Your task to perform on an android device: turn on the 12-hour format for clock Image 0: 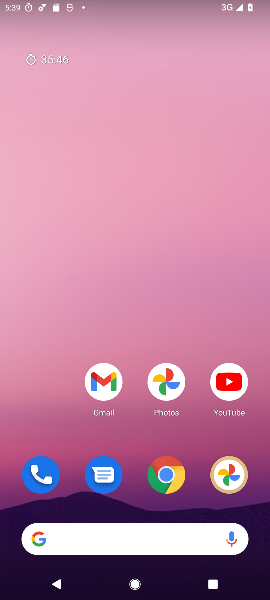
Step 0: press home button
Your task to perform on an android device: turn on the 12-hour format for clock Image 1: 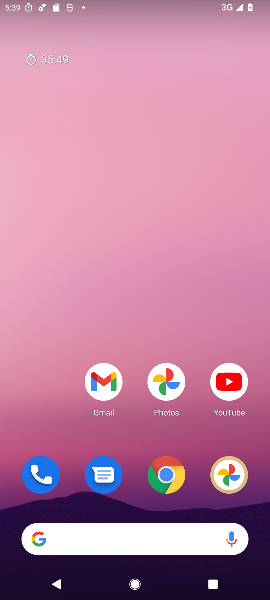
Step 1: drag from (60, 400) to (62, 126)
Your task to perform on an android device: turn on the 12-hour format for clock Image 2: 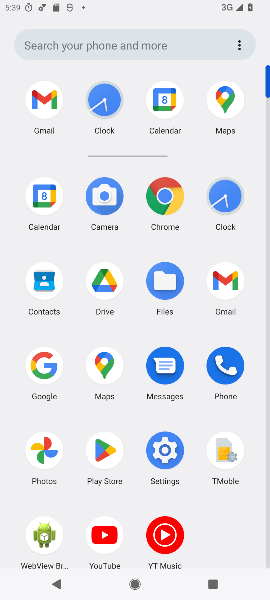
Step 2: click (230, 192)
Your task to perform on an android device: turn on the 12-hour format for clock Image 3: 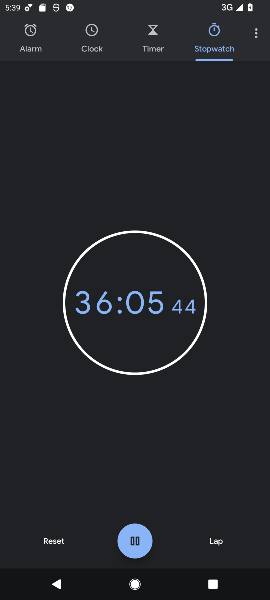
Step 3: click (257, 35)
Your task to perform on an android device: turn on the 12-hour format for clock Image 4: 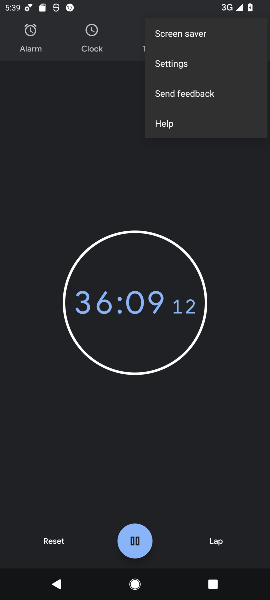
Step 4: click (177, 61)
Your task to perform on an android device: turn on the 12-hour format for clock Image 5: 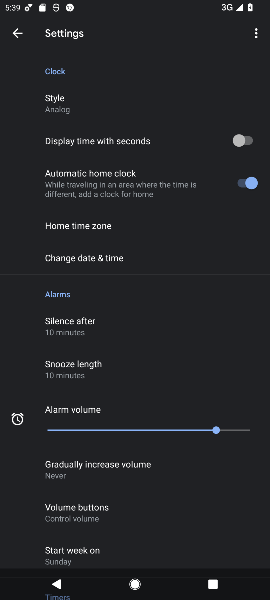
Step 5: click (144, 263)
Your task to perform on an android device: turn on the 12-hour format for clock Image 6: 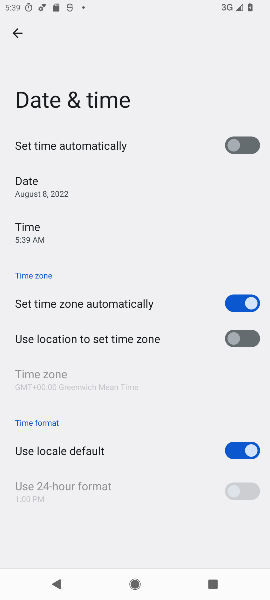
Step 6: task complete